Your task to perform on an android device: Go to Maps Image 0: 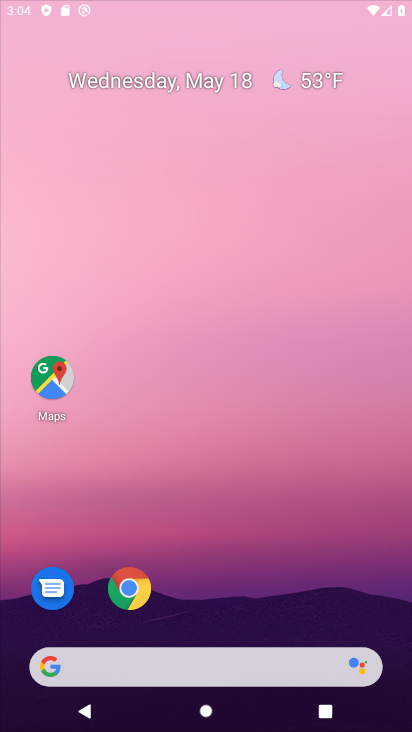
Step 0: press home button
Your task to perform on an android device: Go to Maps Image 1: 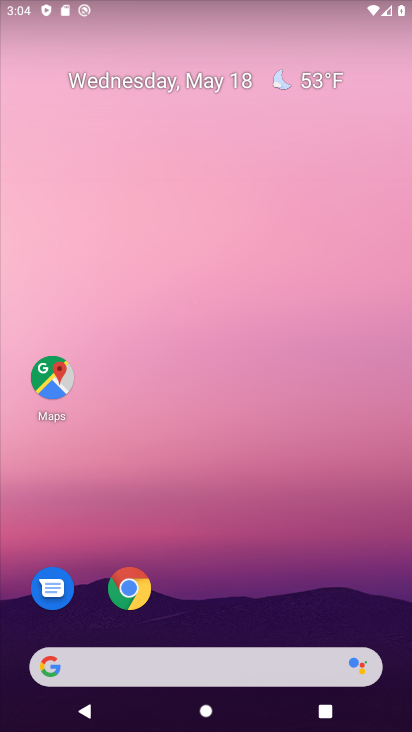
Step 1: click (39, 400)
Your task to perform on an android device: Go to Maps Image 2: 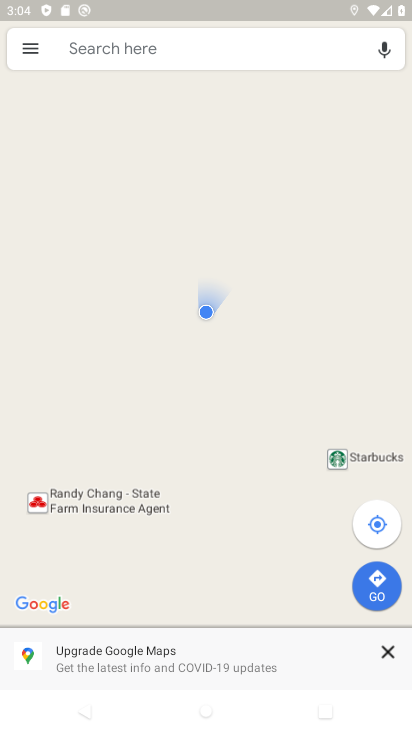
Step 2: task complete